Your task to perform on an android device: turn on priority inbox in the gmail app Image 0: 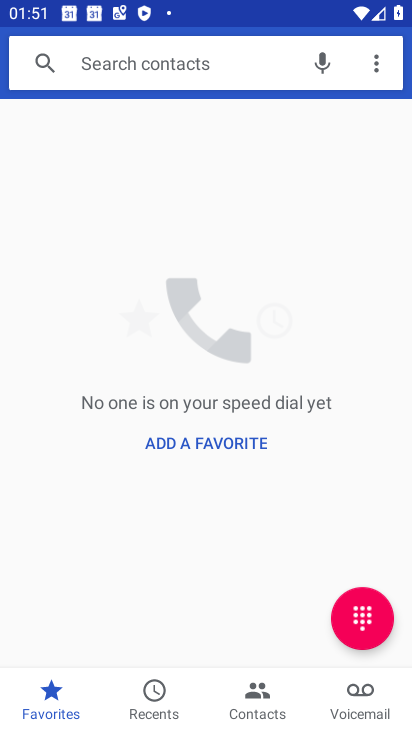
Step 0: press home button
Your task to perform on an android device: turn on priority inbox in the gmail app Image 1: 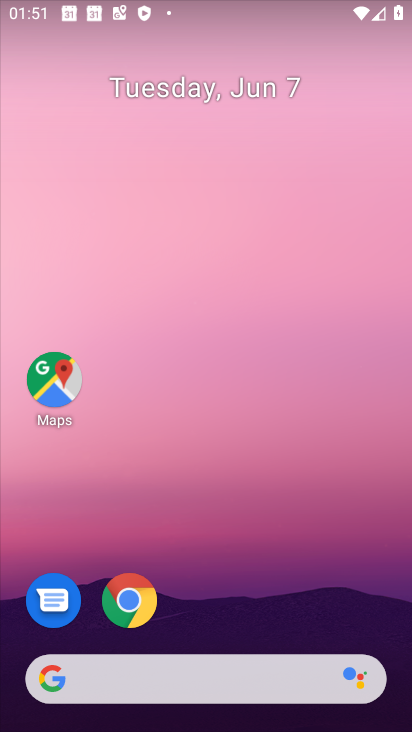
Step 1: drag from (216, 715) to (216, 318)
Your task to perform on an android device: turn on priority inbox in the gmail app Image 2: 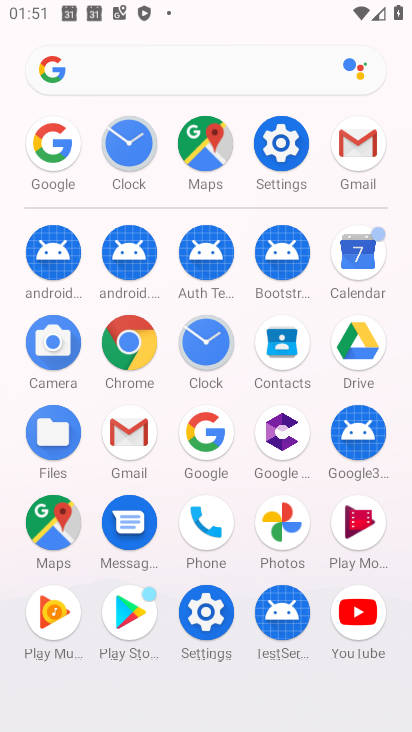
Step 2: click (135, 428)
Your task to perform on an android device: turn on priority inbox in the gmail app Image 3: 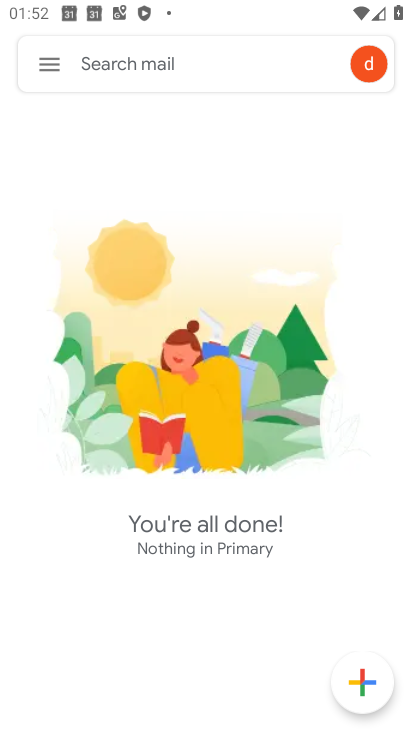
Step 3: click (43, 62)
Your task to perform on an android device: turn on priority inbox in the gmail app Image 4: 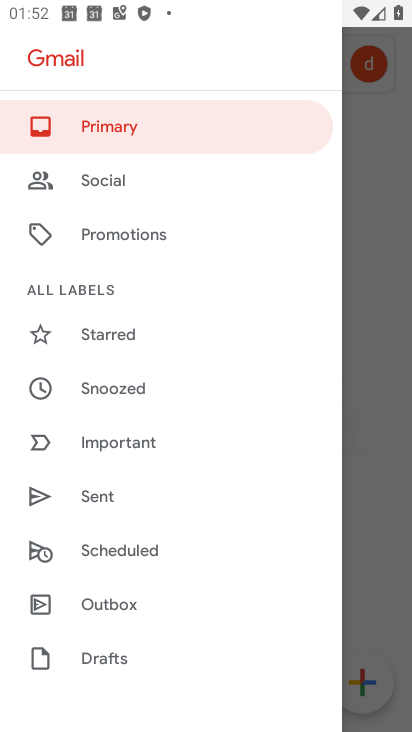
Step 4: drag from (102, 674) to (101, 320)
Your task to perform on an android device: turn on priority inbox in the gmail app Image 5: 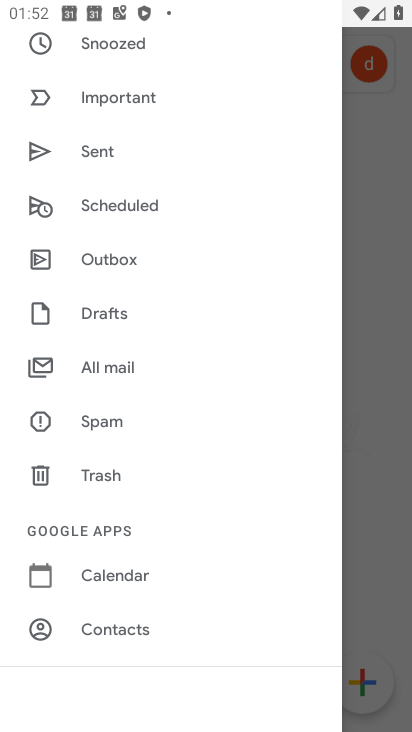
Step 5: drag from (117, 613) to (107, 267)
Your task to perform on an android device: turn on priority inbox in the gmail app Image 6: 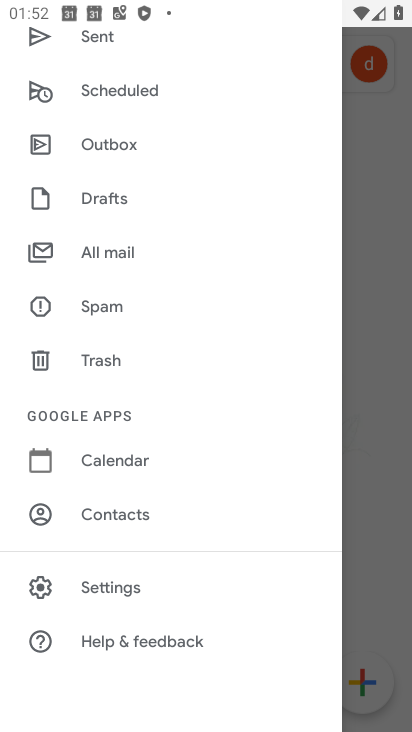
Step 6: click (105, 582)
Your task to perform on an android device: turn on priority inbox in the gmail app Image 7: 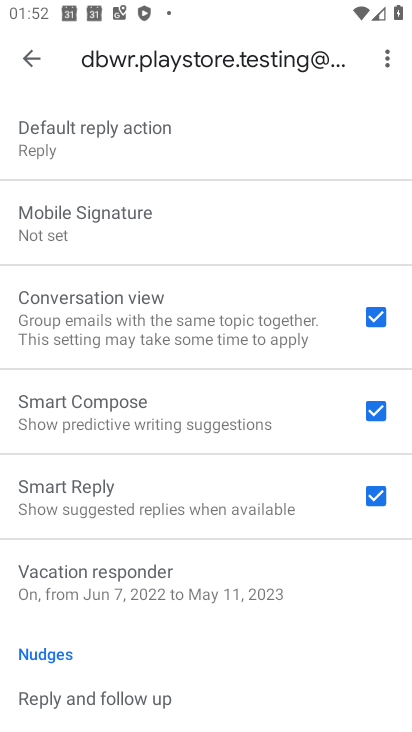
Step 7: drag from (145, 171) to (156, 584)
Your task to perform on an android device: turn on priority inbox in the gmail app Image 8: 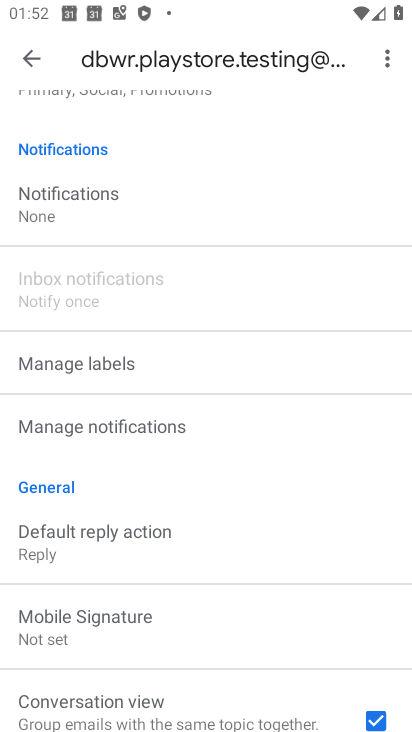
Step 8: drag from (182, 162) to (181, 553)
Your task to perform on an android device: turn on priority inbox in the gmail app Image 9: 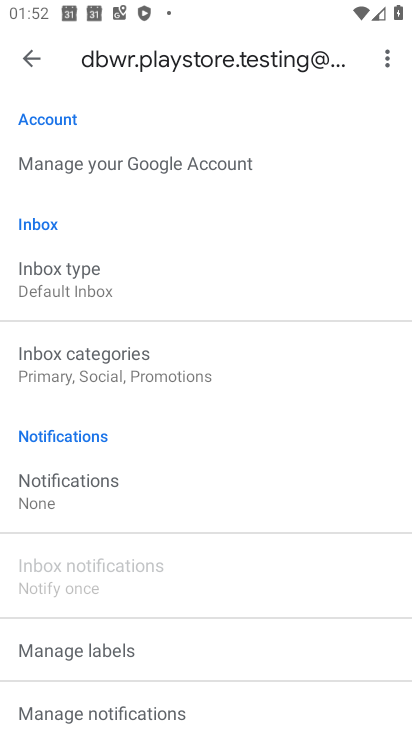
Step 9: click (70, 277)
Your task to perform on an android device: turn on priority inbox in the gmail app Image 10: 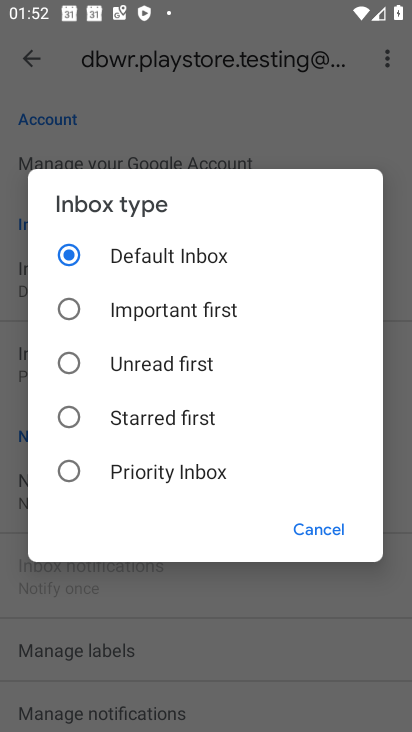
Step 10: click (73, 468)
Your task to perform on an android device: turn on priority inbox in the gmail app Image 11: 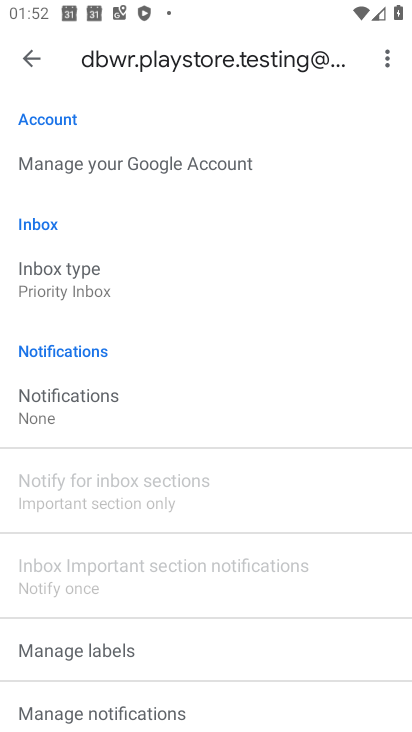
Step 11: task complete